Your task to perform on an android device: What are the best selling refrigerators at Lowes? Image 0: 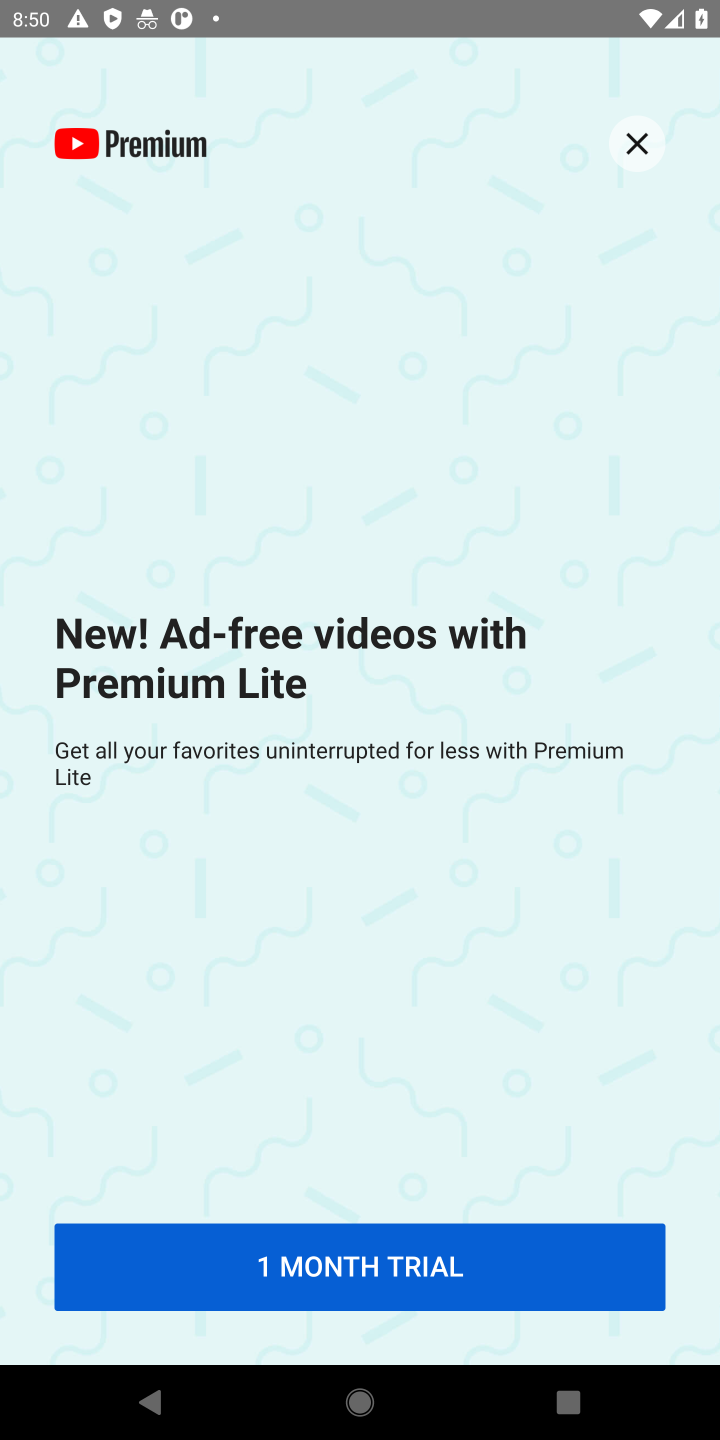
Step 0: press home button
Your task to perform on an android device: What are the best selling refrigerators at Lowes? Image 1: 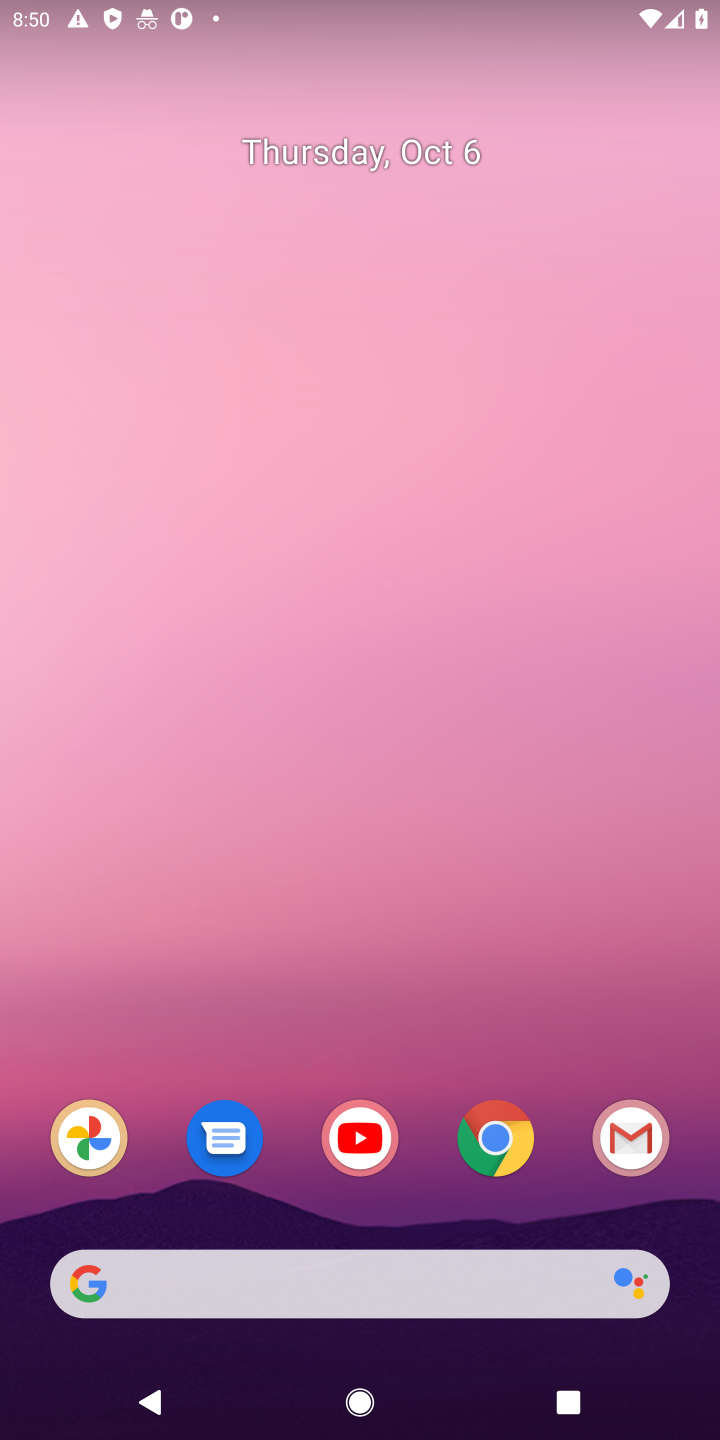
Step 1: click (475, 1135)
Your task to perform on an android device: What are the best selling refrigerators at Lowes? Image 2: 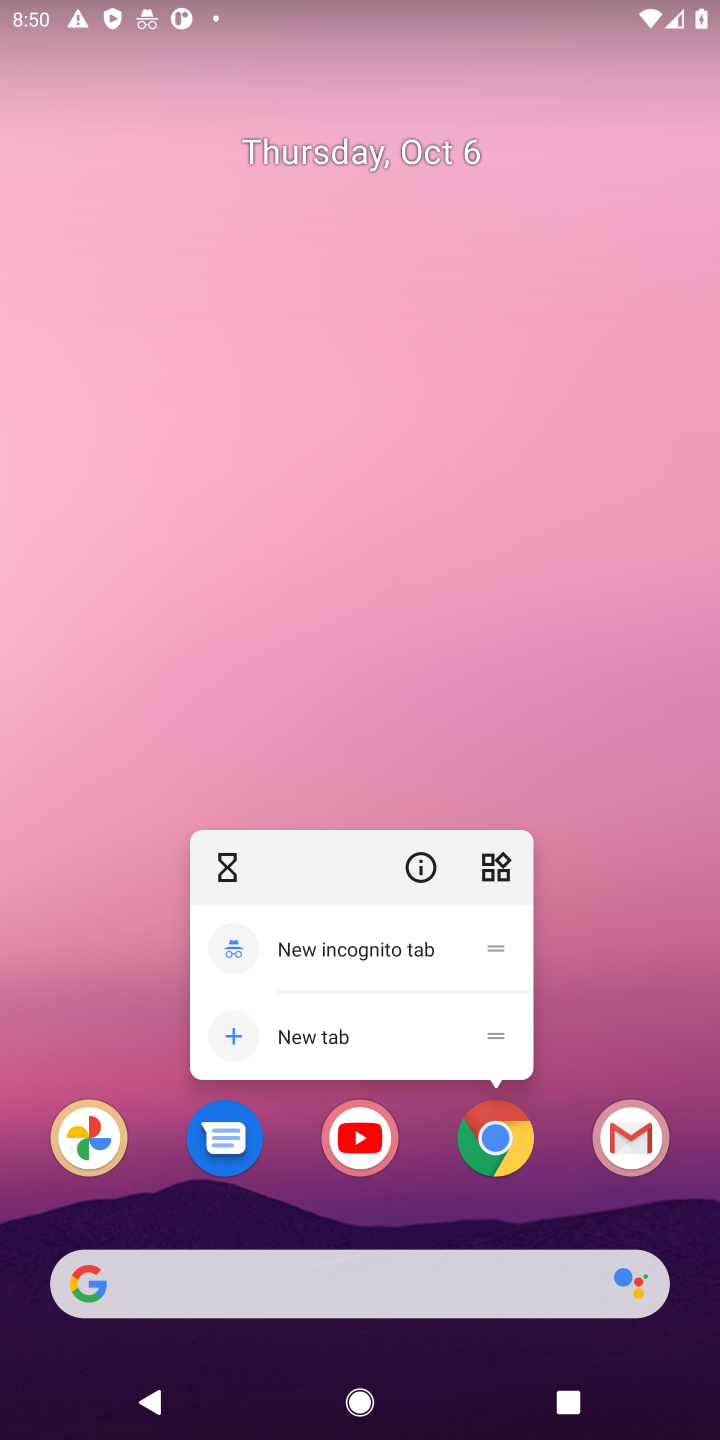
Step 2: click (499, 1126)
Your task to perform on an android device: What are the best selling refrigerators at Lowes? Image 3: 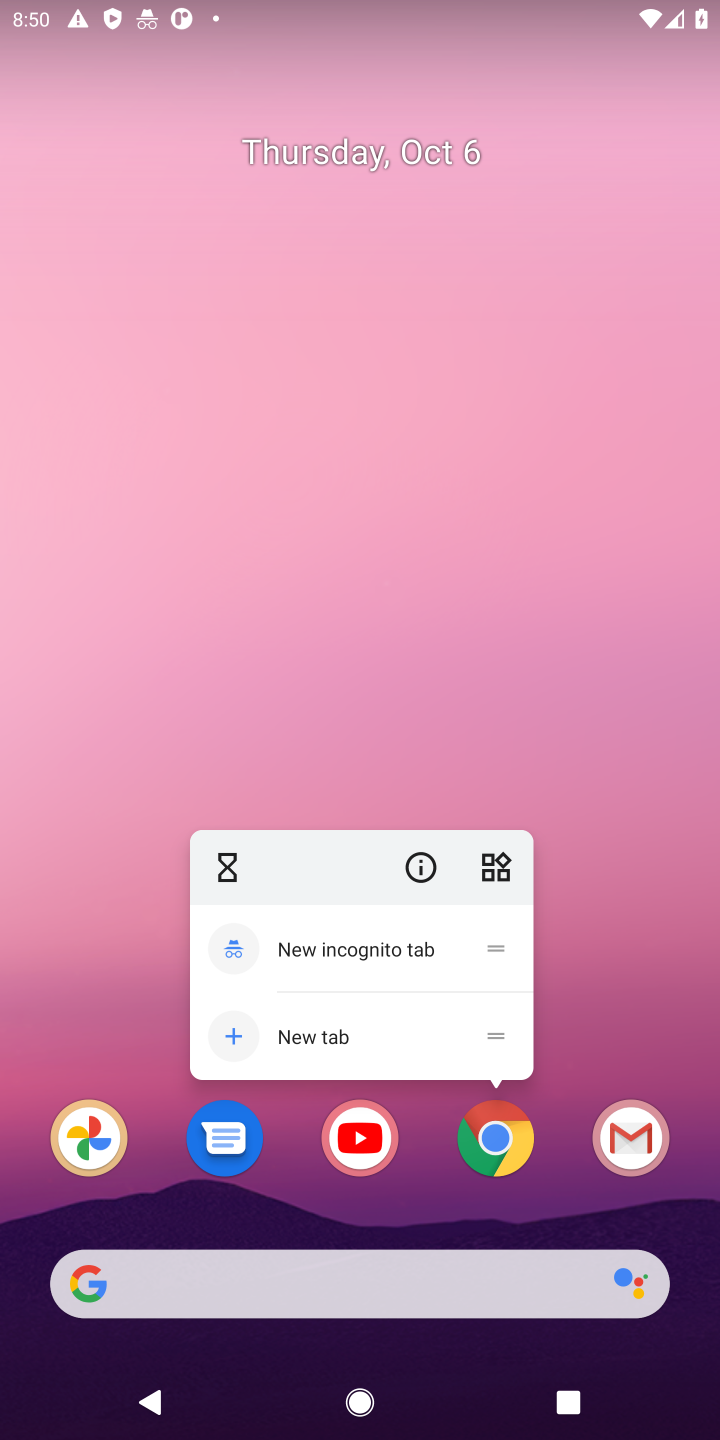
Step 3: click (495, 1150)
Your task to perform on an android device: What are the best selling refrigerators at Lowes? Image 4: 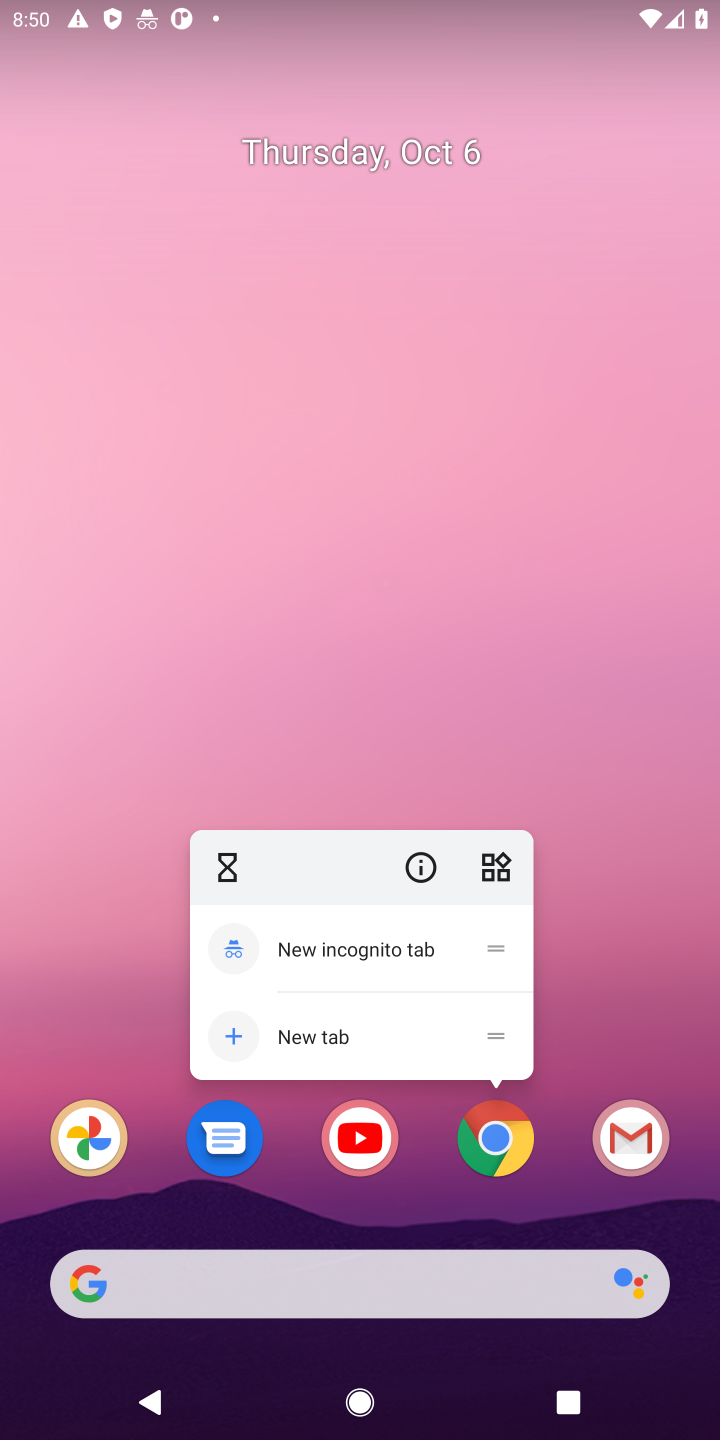
Step 4: click (495, 1150)
Your task to perform on an android device: What are the best selling refrigerators at Lowes? Image 5: 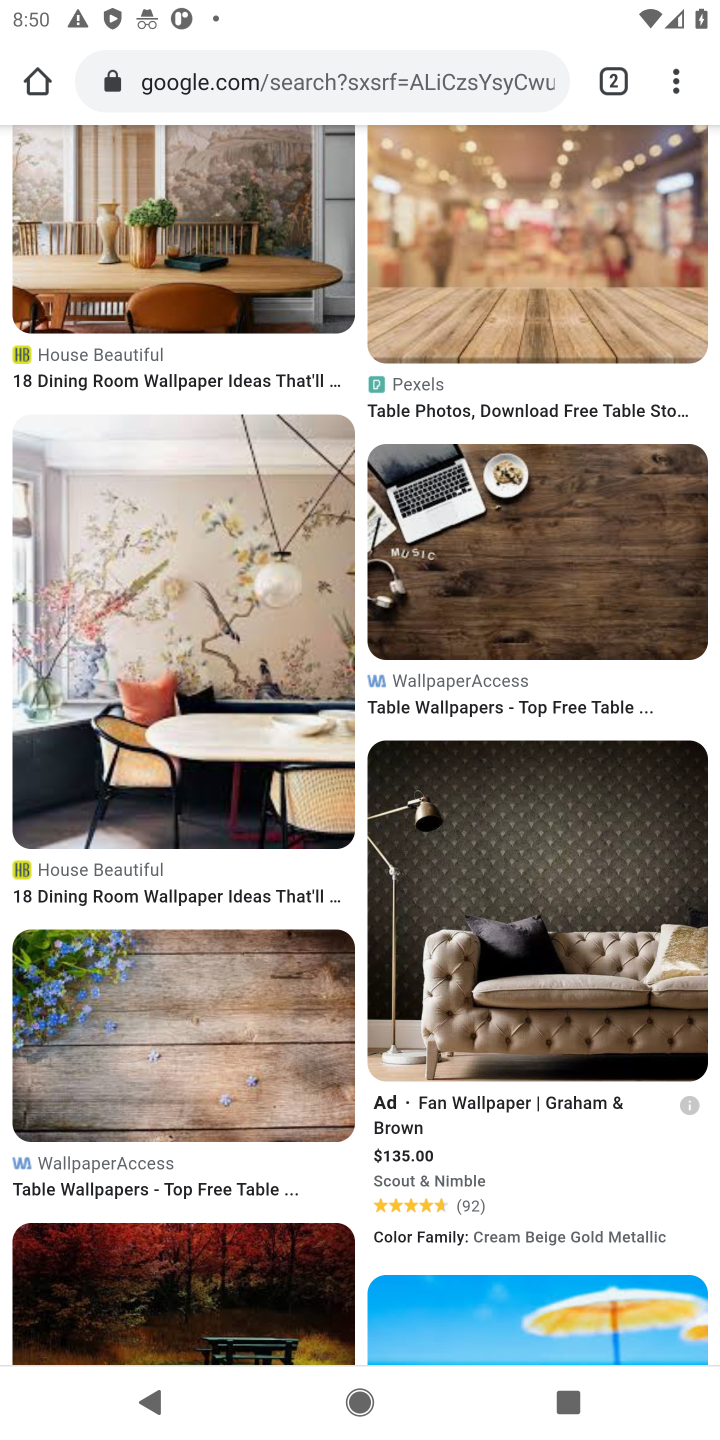
Step 5: click (405, 84)
Your task to perform on an android device: What are the best selling refrigerators at Lowes? Image 6: 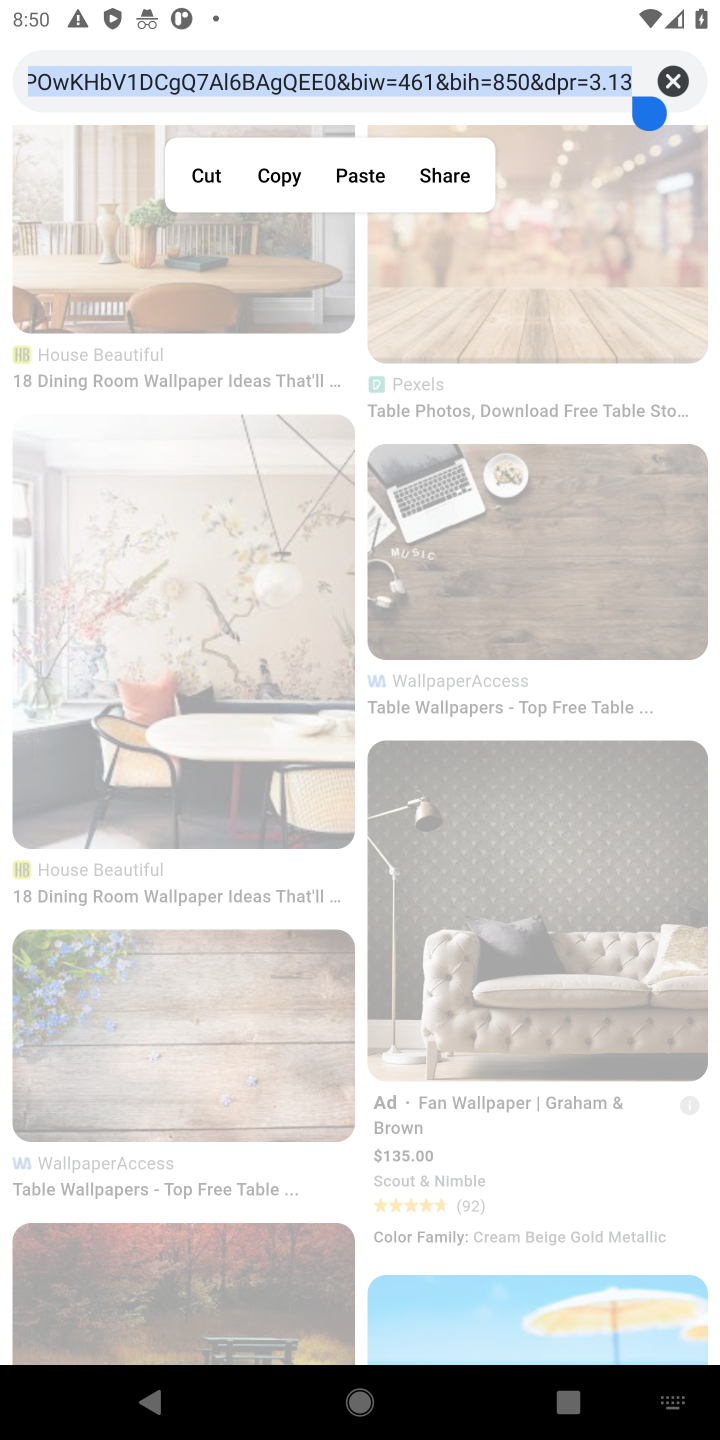
Step 6: click (664, 81)
Your task to perform on an android device: What are the best selling refrigerators at Lowes? Image 7: 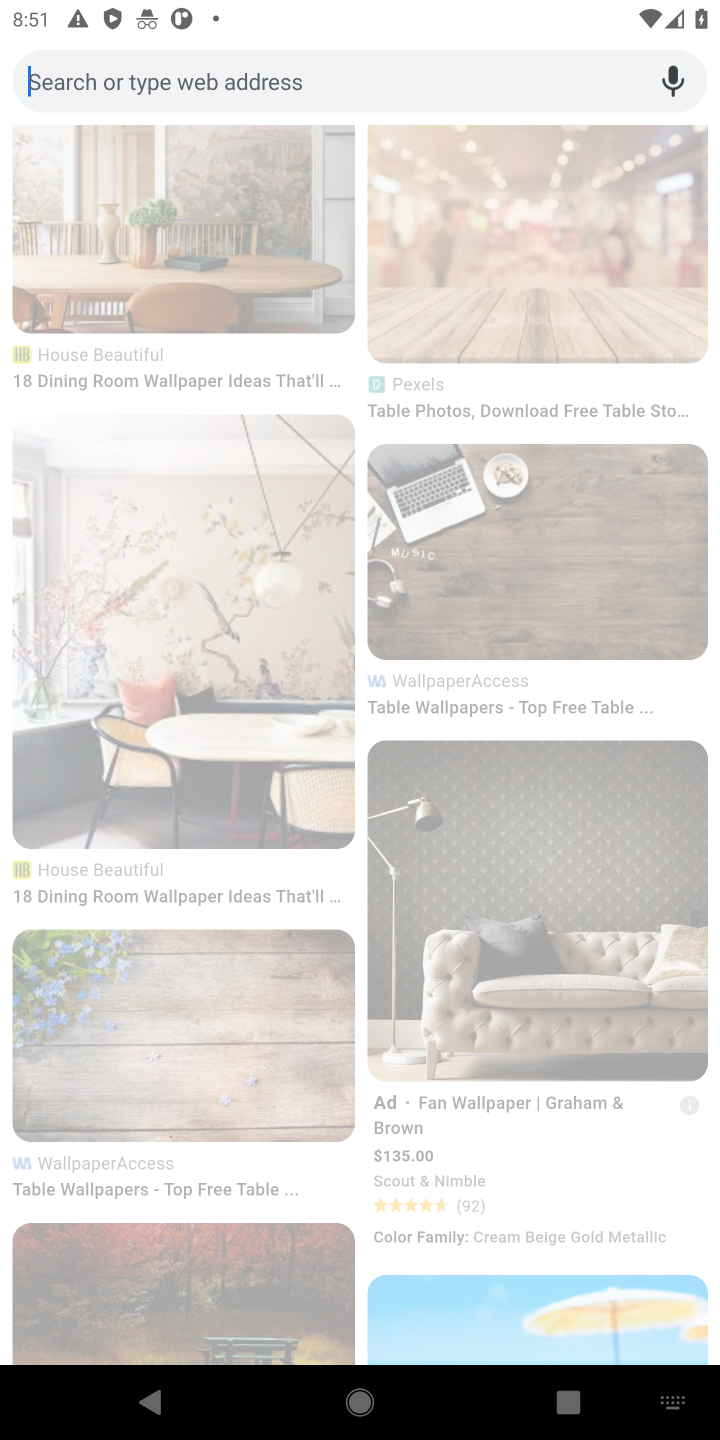
Step 7: type "best selling refrigerators at Lowes"
Your task to perform on an android device: What are the best selling refrigerators at Lowes? Image 8: 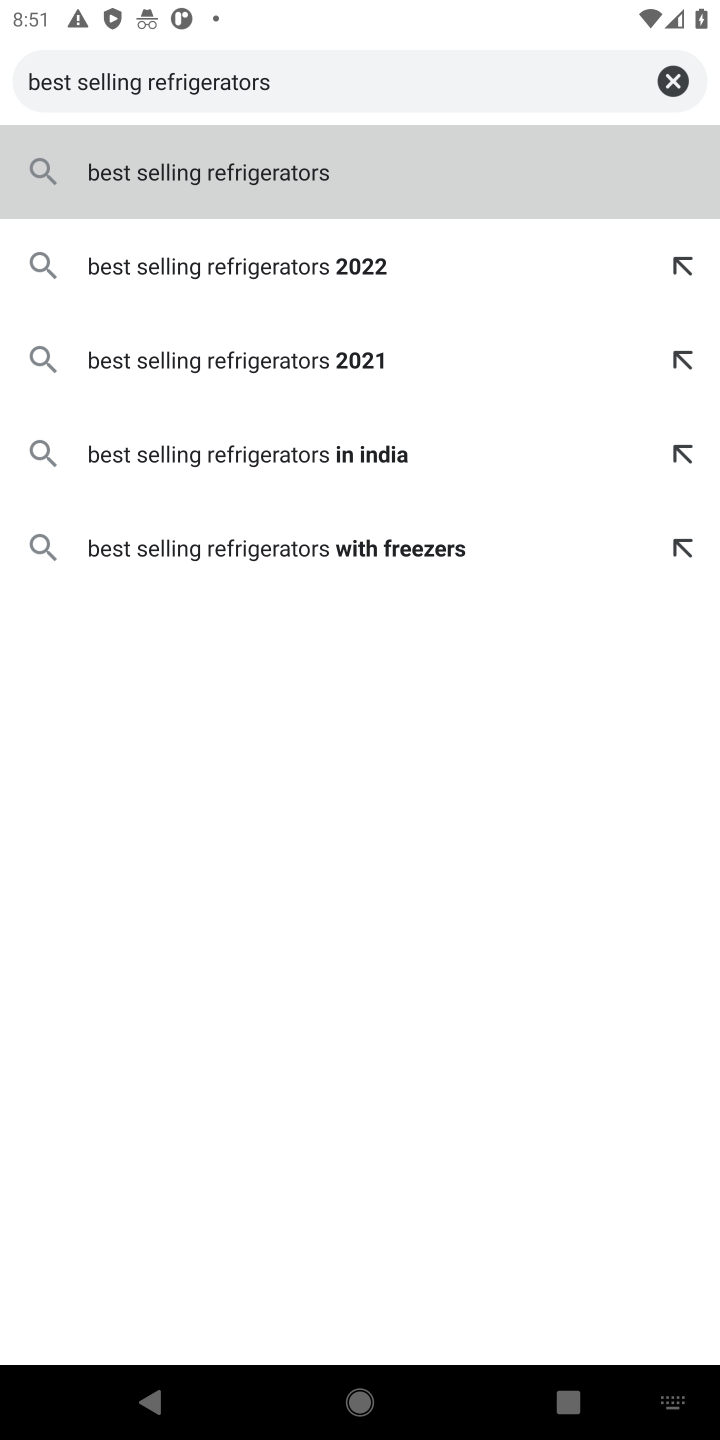
Step 8: press home button
Your task to perform on an android device: What are the best selling refrigerators at Lowes? Image 9: 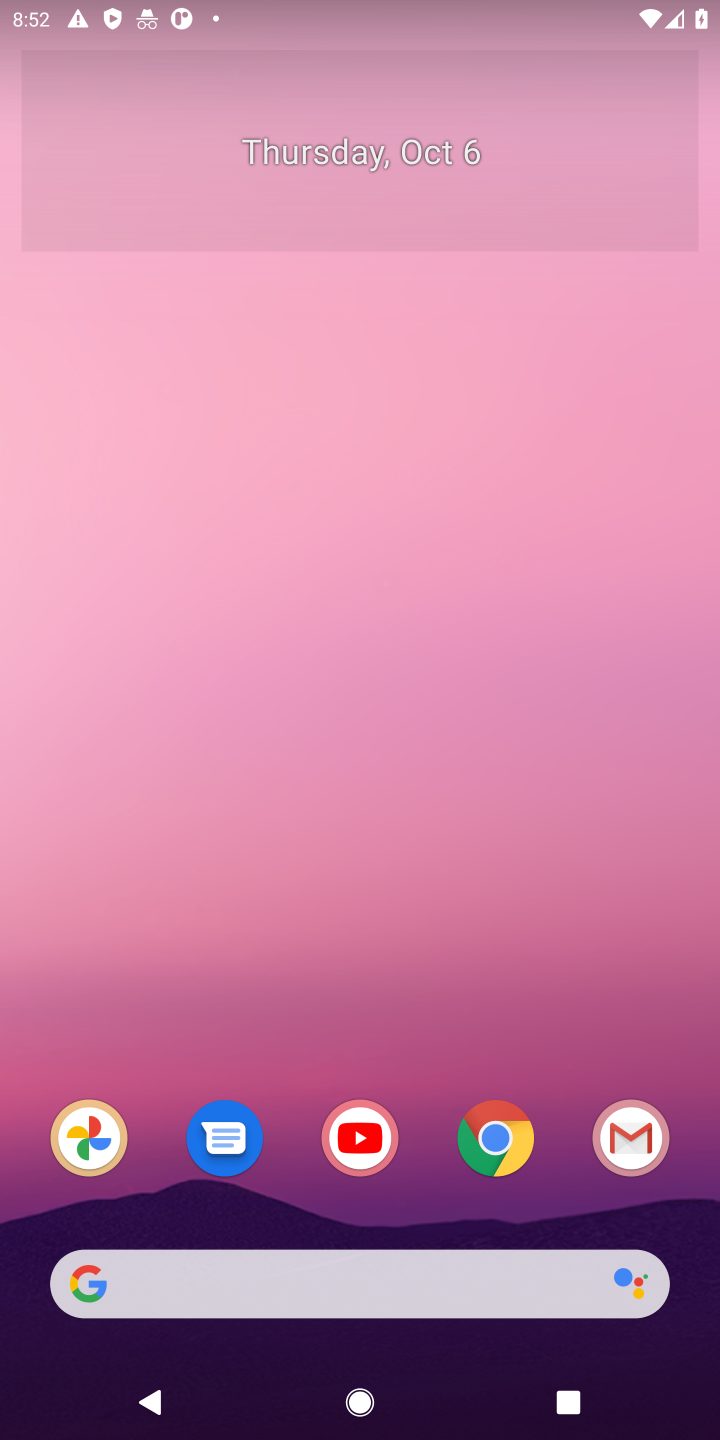
Step 9: click (491, 1145)
Your task to perform on an android device: What are the best selling refrigerators at Lowes? Image 10: 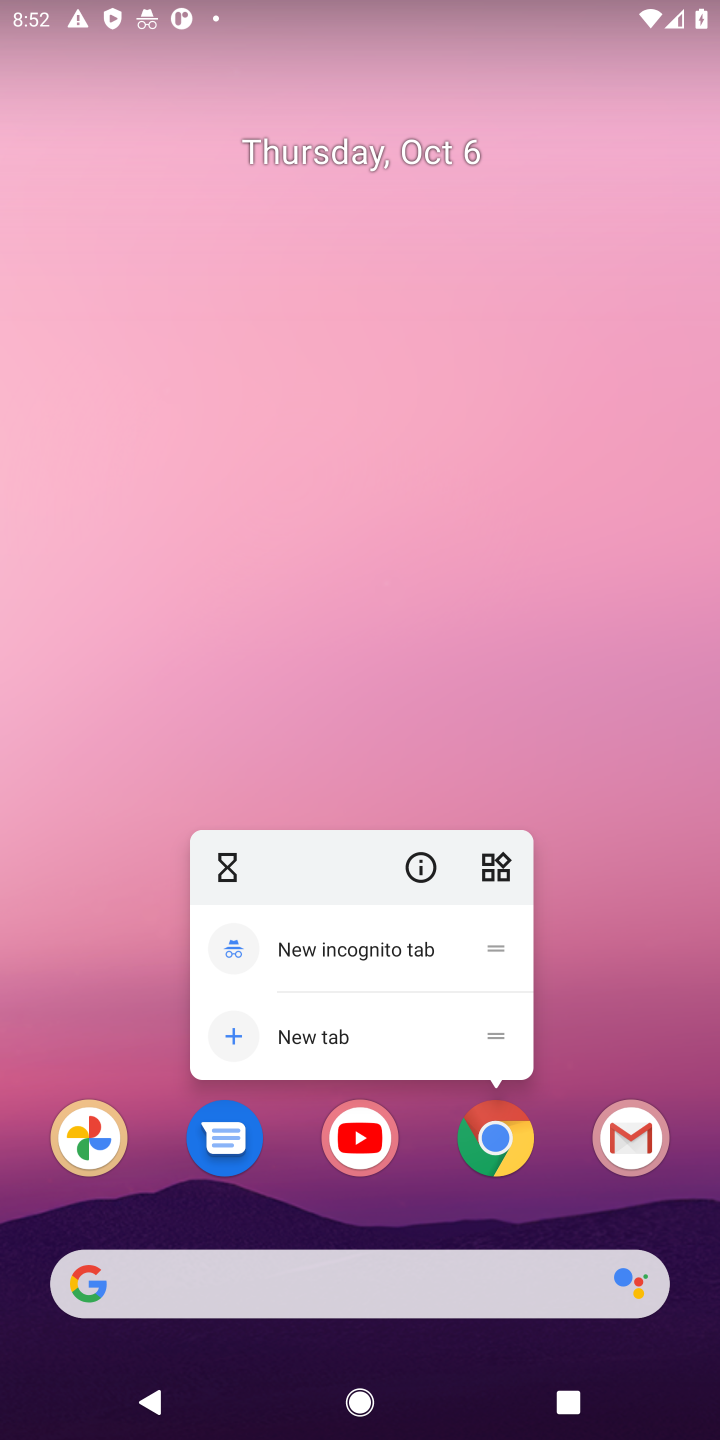
Step 10: click (491, 1145)
Your task to perform on an android device: What are the best selling refrigerators at Lowes? Image 11: 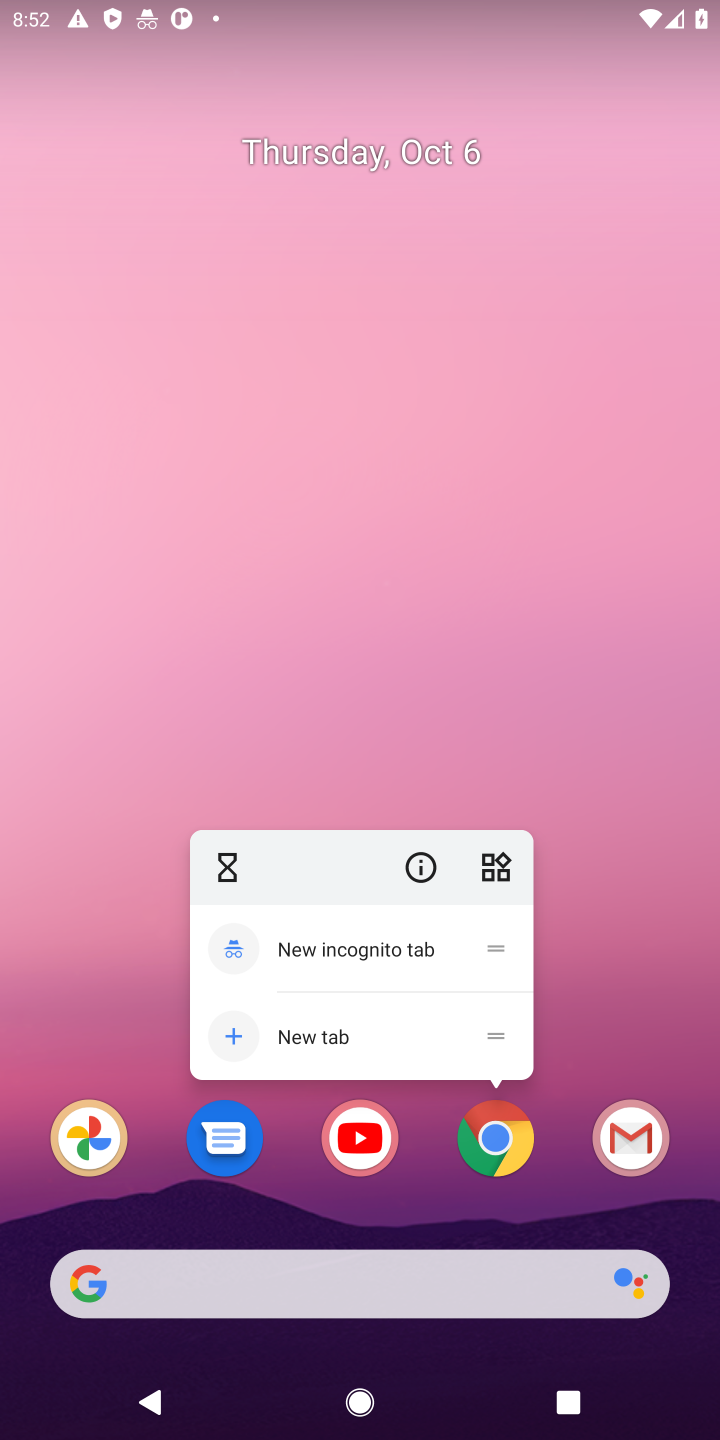
Step 11: click (491, 1145)
Your task to perform on an android device: What are the best selling refrigerators at Lowes? Image 12: 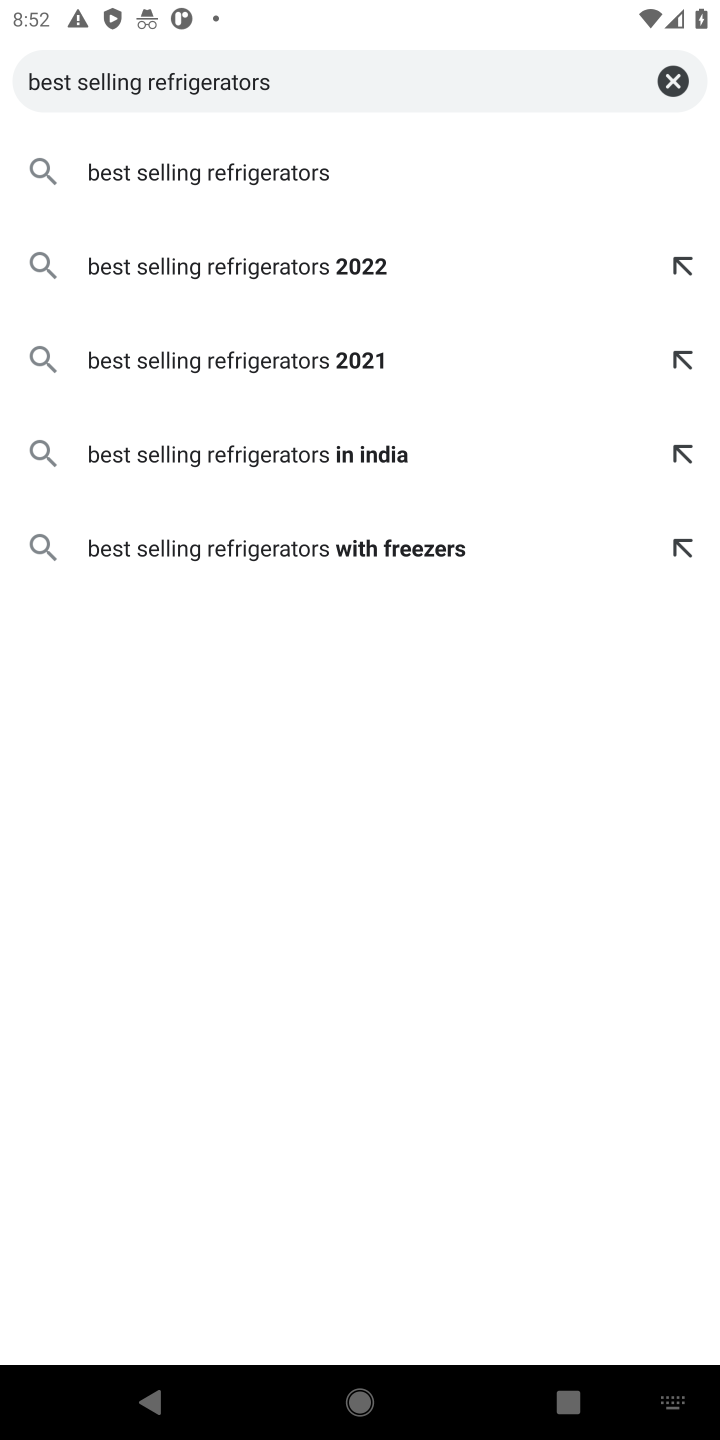
Step 12: type "at lowes"
Your task to perform on an android device: What are the best selling refrigerators at Lowes? Image 13: 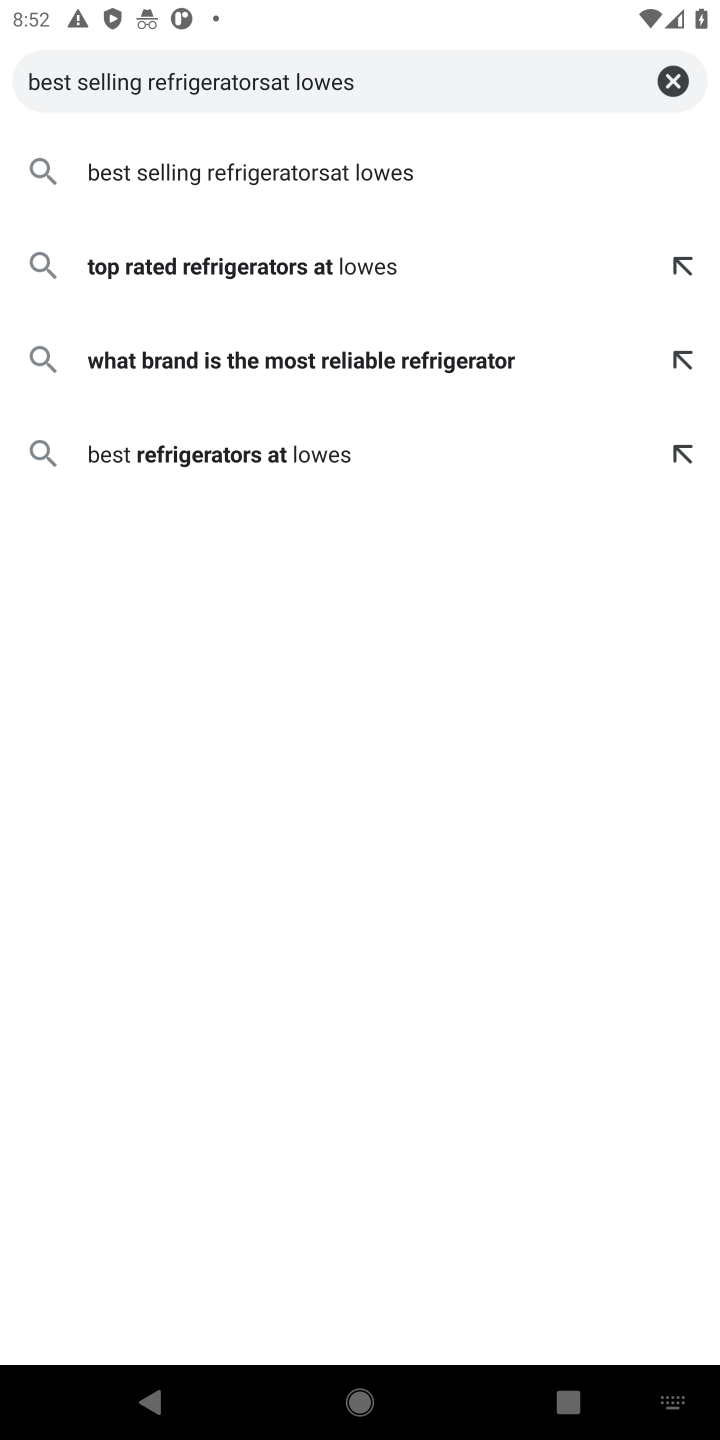
Step 13: click (234, 169)
Your task to perform on an android device: What are the best selling refrigerators at Lowes? Image 14: 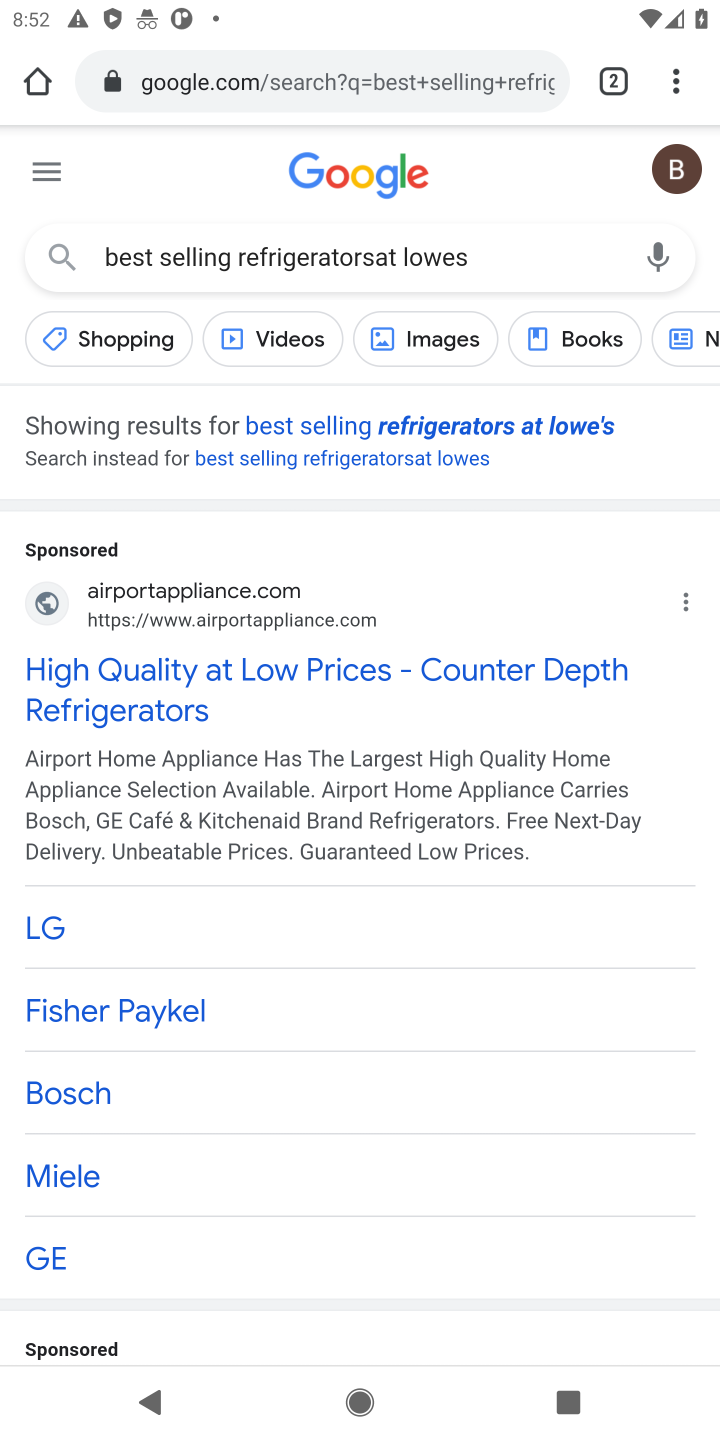
Step 14: drag from (217, 1084) to (392, 500)
Your task to perform on an android device: What are the best selling refrigerators at Lowes? Image 15: 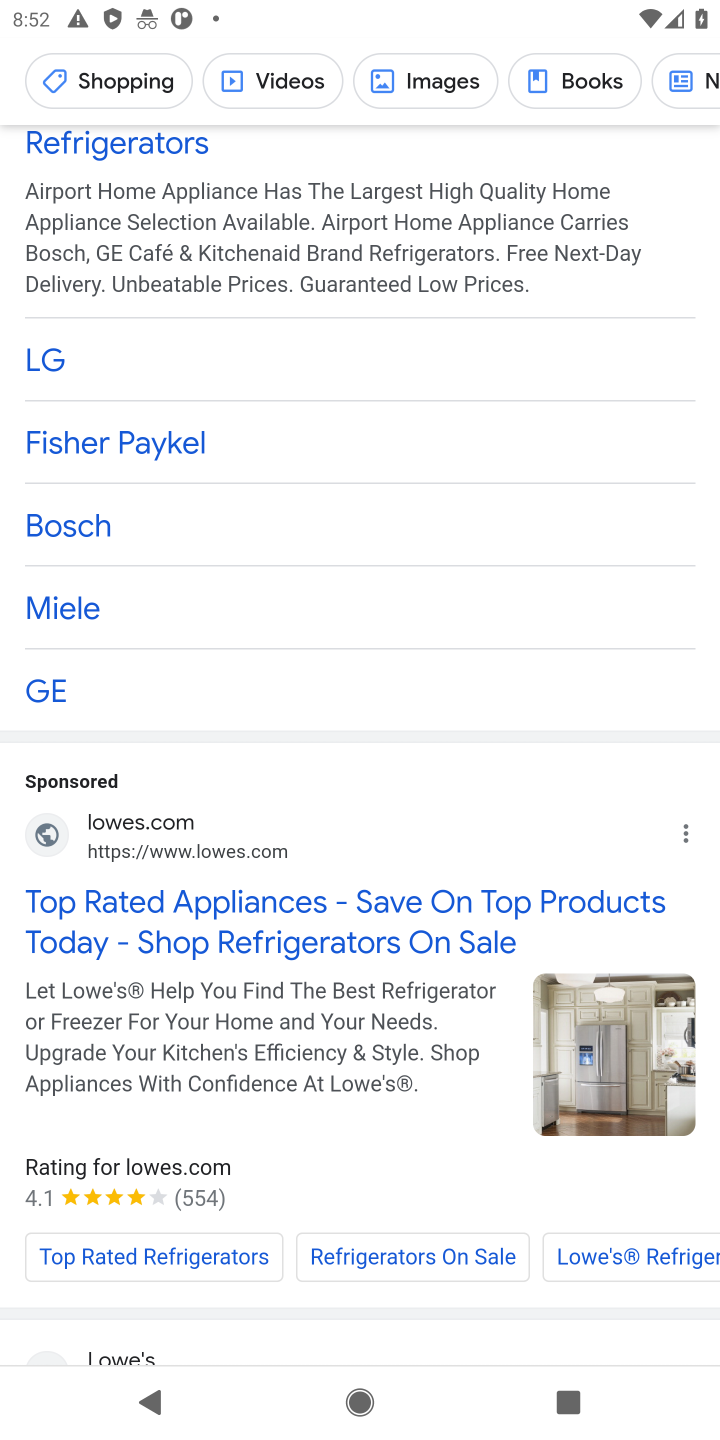
Step 15: click (200, 909)
Your task to perform on an android device: What are the best selling refrigerators at Lowes? Image 16: 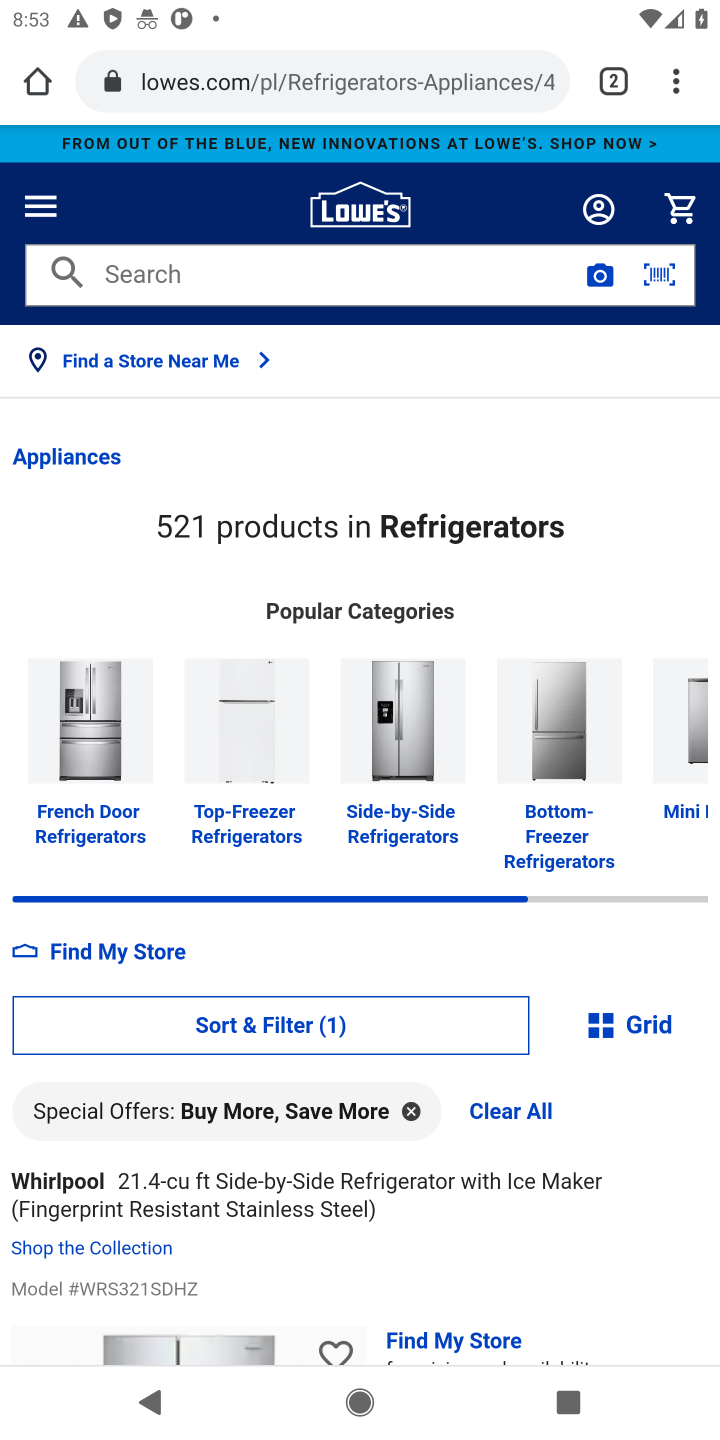
Step 16: task complete